Your task to perform on an android device: What is the recent news? Image 0: 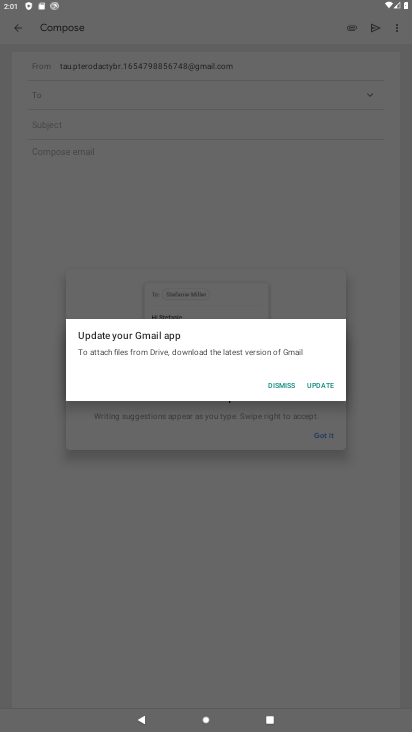
Step 0: press home button
Your task to perform on an android device: What is the recent news? Image 1: 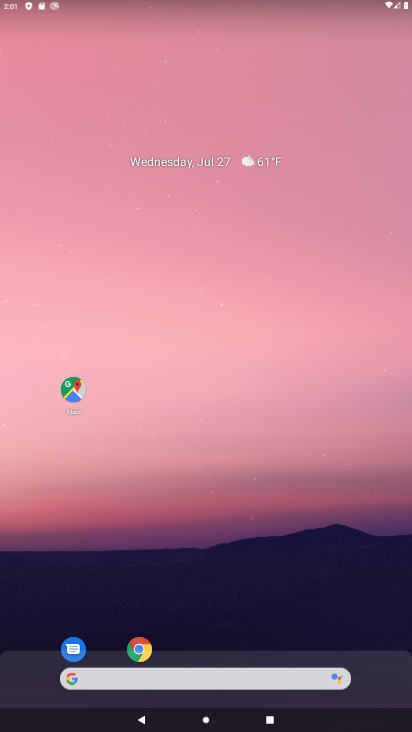
Step 1: drag from (181, 594) to (264, 9)
Your task to perform on an android device: What is the recent news? Image 2: 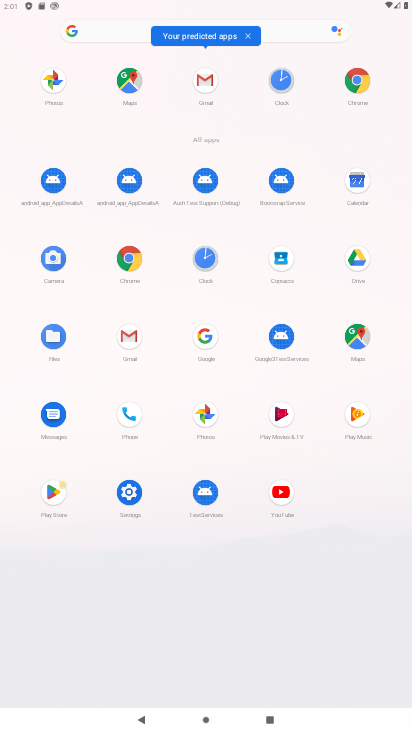
Step 2: click (206, 332)
Your task to perform on an android device: What is the recent news? Image 3: 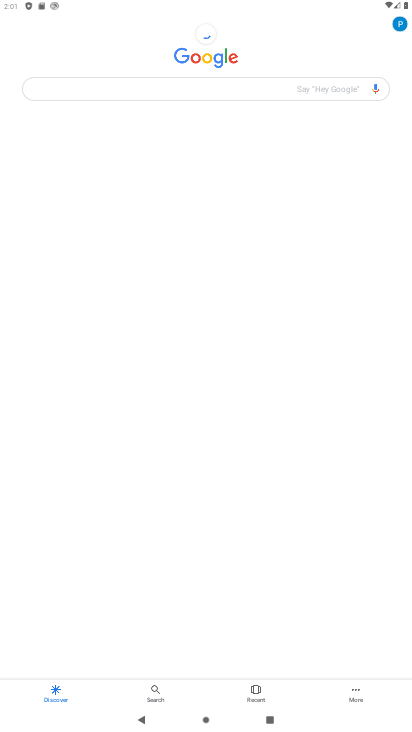
Step 3: click (164, 82)
Your task to perform on an android device: What is the recent news? Image 4: 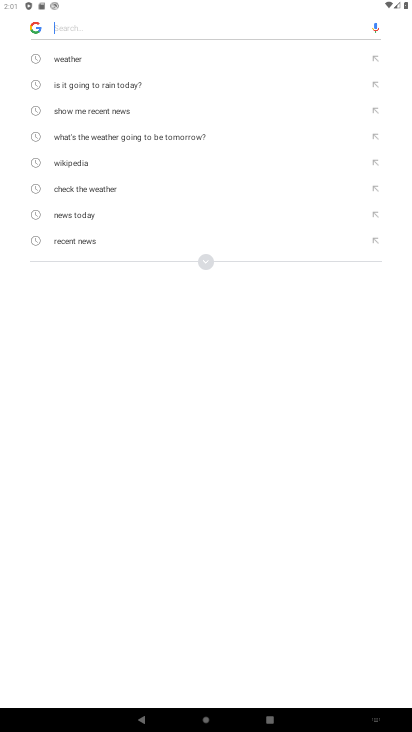
Step 4: click (86, 235)
Your task to perform on an android device: What is the recent news? Image 5: 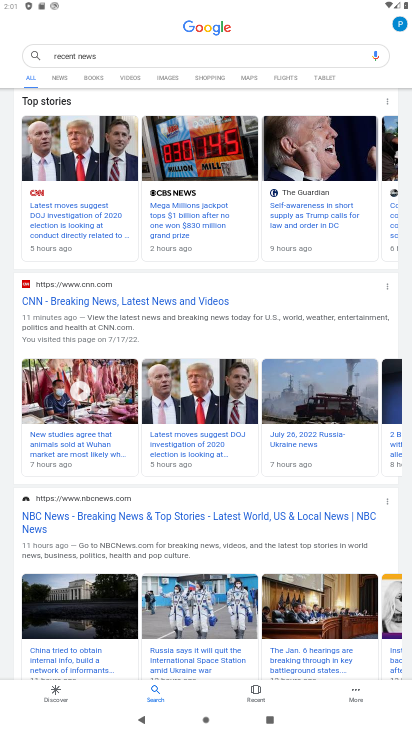
Step 5: task complete